Your task to perform on an android device: turn off smart reply in the gmail app Image 0: 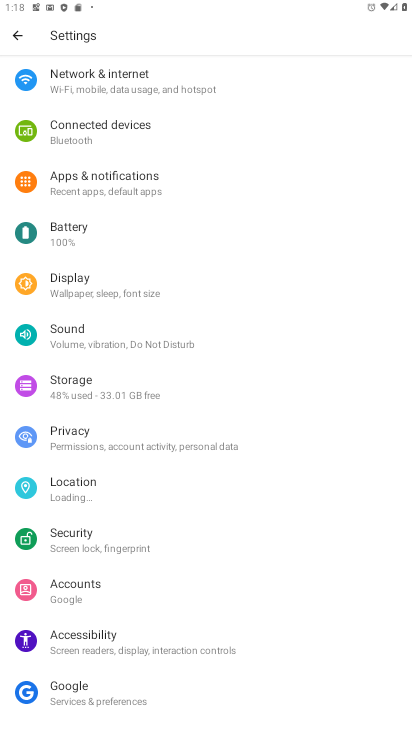
Step 0: press home button
Your task to perform on an android device: turn off smart reply in the gmail app Image 1: 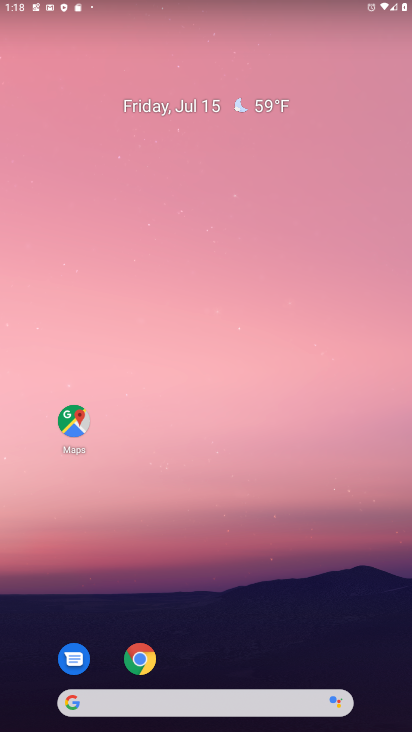
Step 1: drag from (250, 720) to (249, 104)
Your task to perform on an android device: turn off smart reply in the gmail app Image 2: 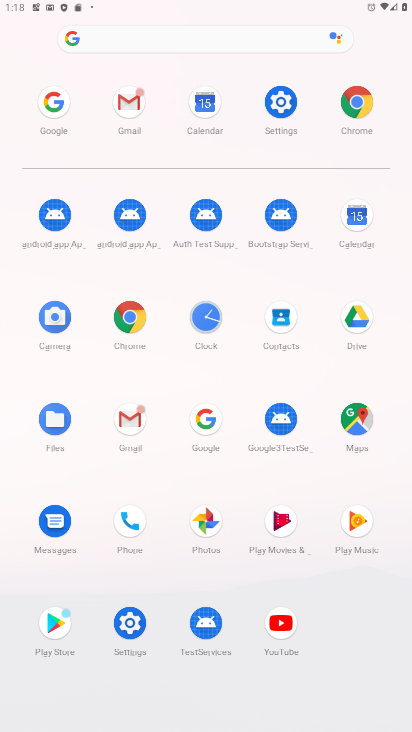
Step 2: click (133, 422)
Your task to perform on an android device: turn off smart reply in the gmail app Image 3: 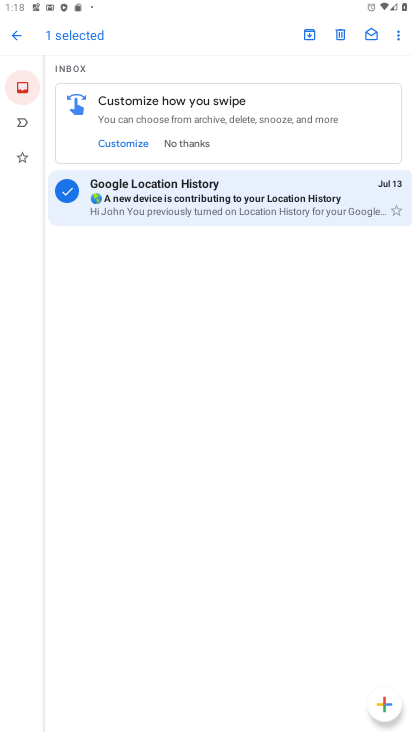
Step 3: click (19, 32)
Your task to perform on an android device: turn off smart reply in the gmail app Image 4: 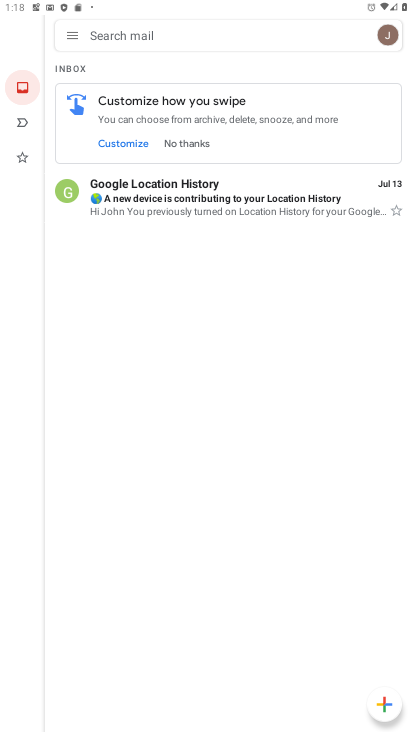
Step 4: click (69, 33)
Your task to perform on an android device: turn off smart reply in the gmail app Image 5: 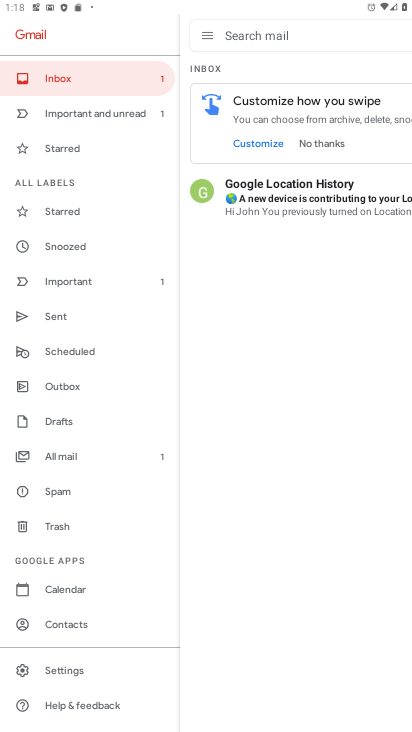
Step 5: click (71, 669)
Your task to perform on an android device: turn off smart reply in the gmail app Image 6: 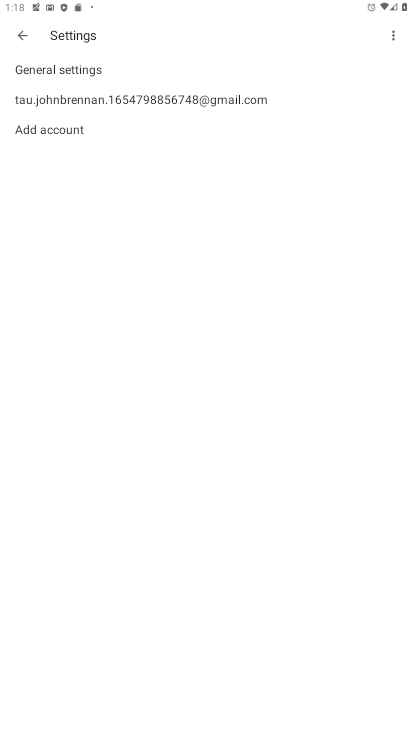
Step 6: click (74, 95)
Your task to perform on an android device: turn off smart reply in the gmail app Image 7: 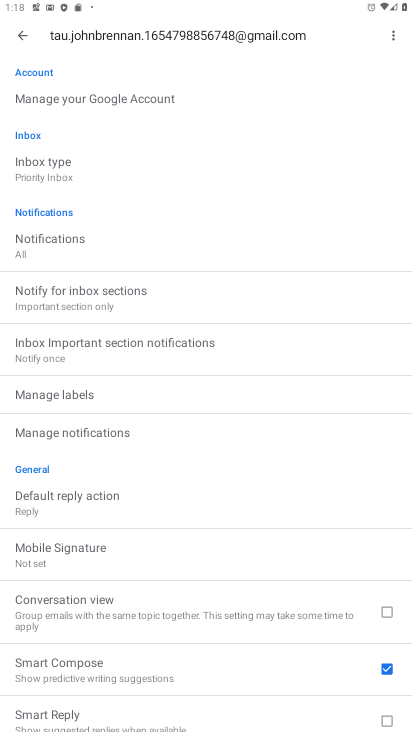
Step 7: task complete